Your task to perform on an android device: change the clock display to analog Image 0: 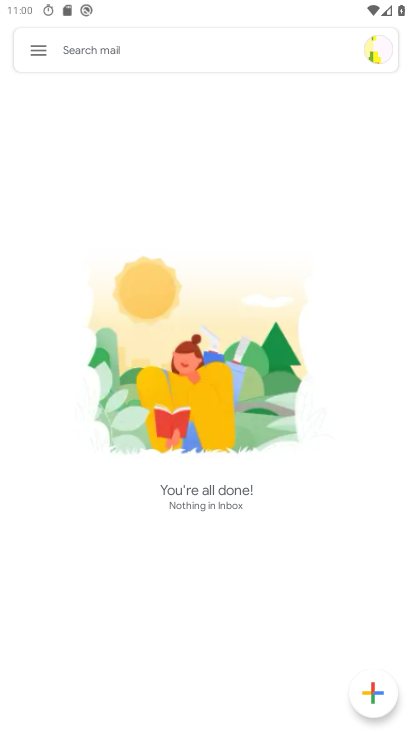
Step 0: press home button
Your task to perform on an android device: change the clock display to analog Image 1: 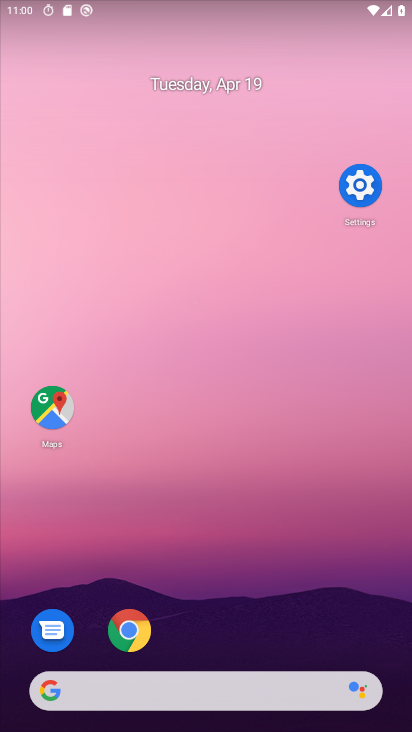
Step 1: drag from (355, 396) to (410, 119)
Your task to perform on an android device: change the clock display to analog Image 2: 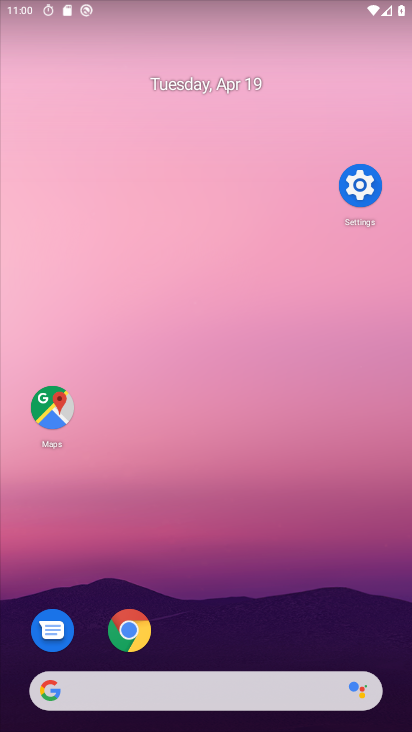
Step 2: drag from (190, 602) to (241, 57)
Your task to perform on an android device: change the clock display to analog Image 3: 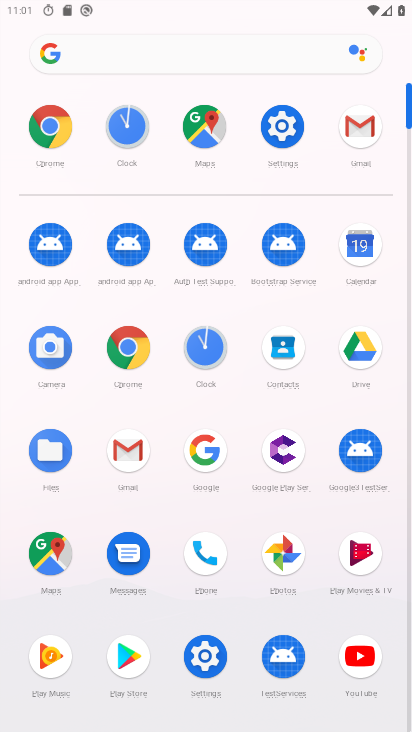
Step 3: click (210, 345)
Your task to perform on an android device: change the clock display to analog Image 4: 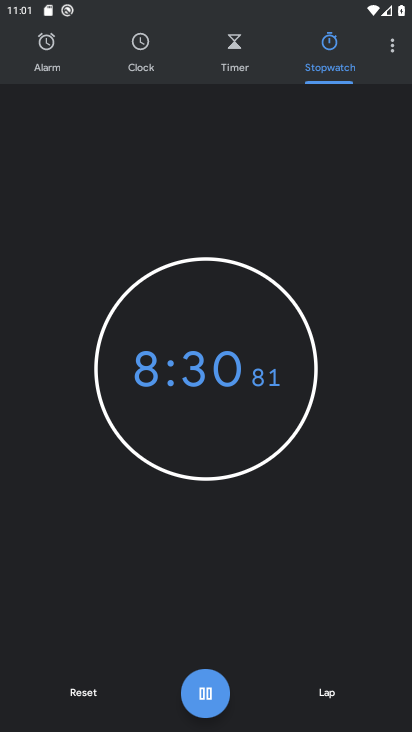
Step 4: click (392, 50)
Your task to perform on an android device: change the clock display to analog Image 5: 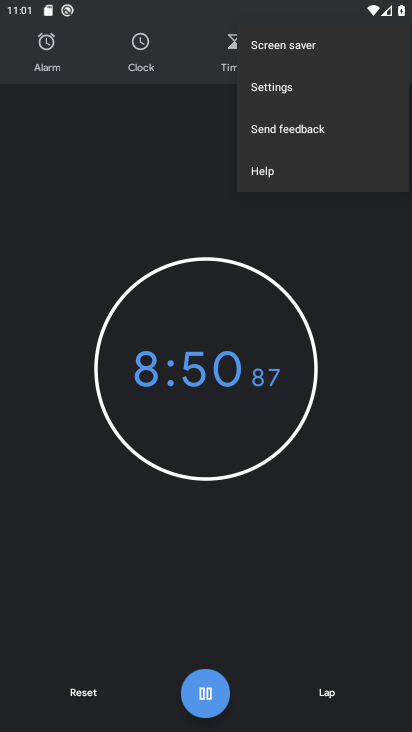
Step 5: click (289, 86)
Your task to perform on an android device: change the clock display to analog Image 6: 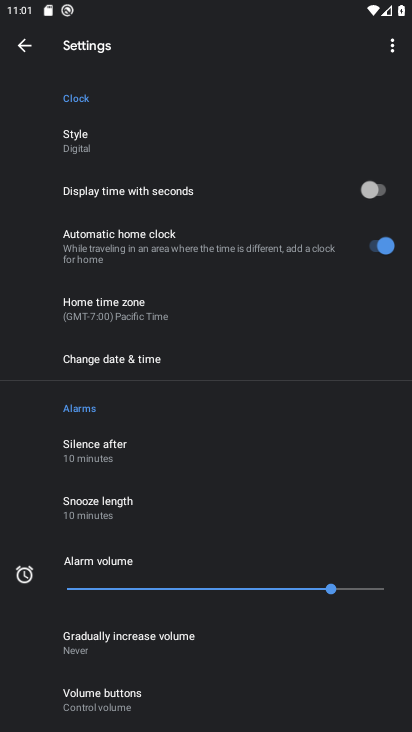
Step 6: click (167, 137)
Your task to perform on an android device: change the clock display to analog Image 7: 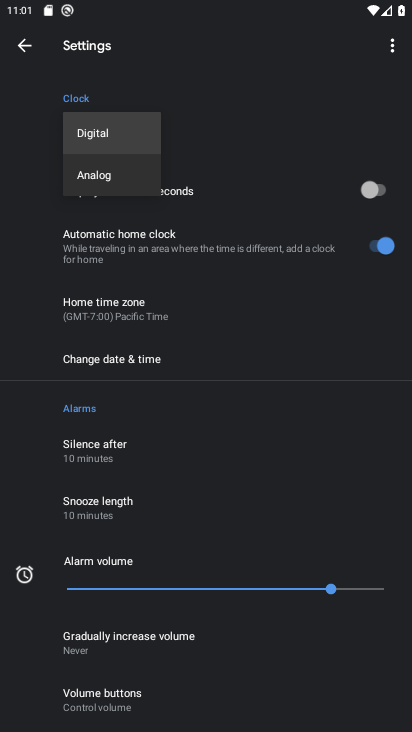
Step 7: click (142, 168)
Your task to perform on an android device: change the clock display to analog Image 8: 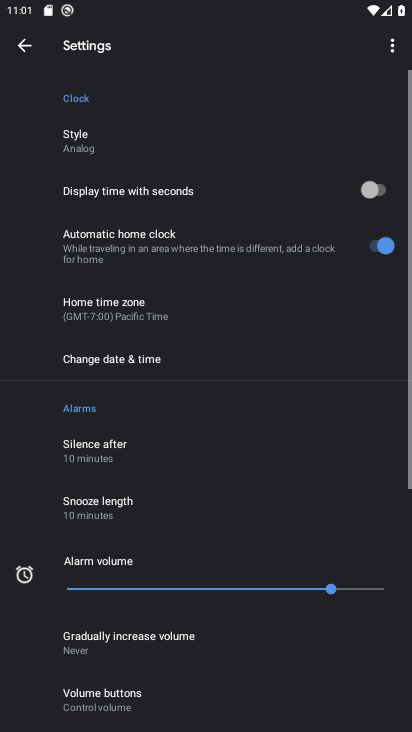
Step 8: task complete